Your task to perform on an android device: Search for Italian restaurants on Maps Image 0: 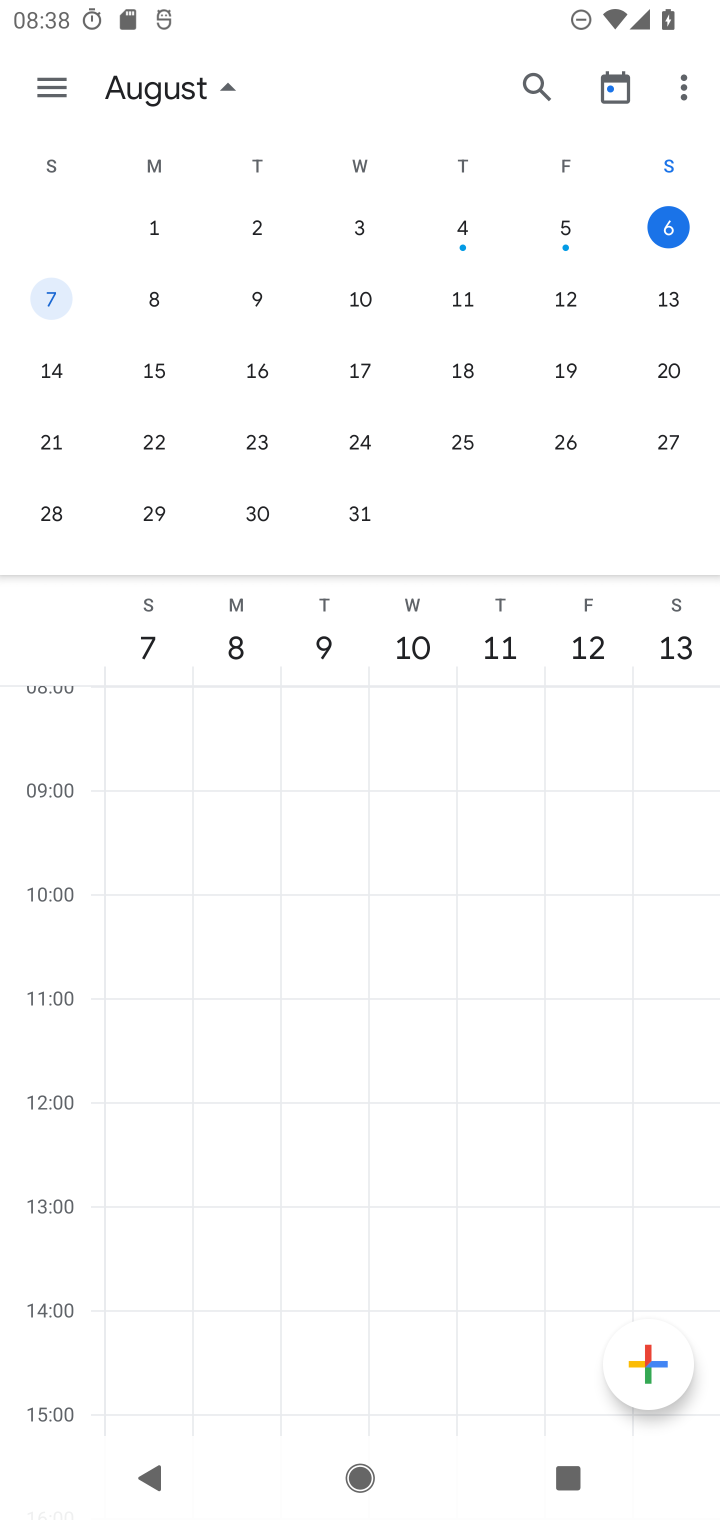
Step 0: press home button
Your task to perform on an android device: Search for Italian restaurants on Maps Image 1: 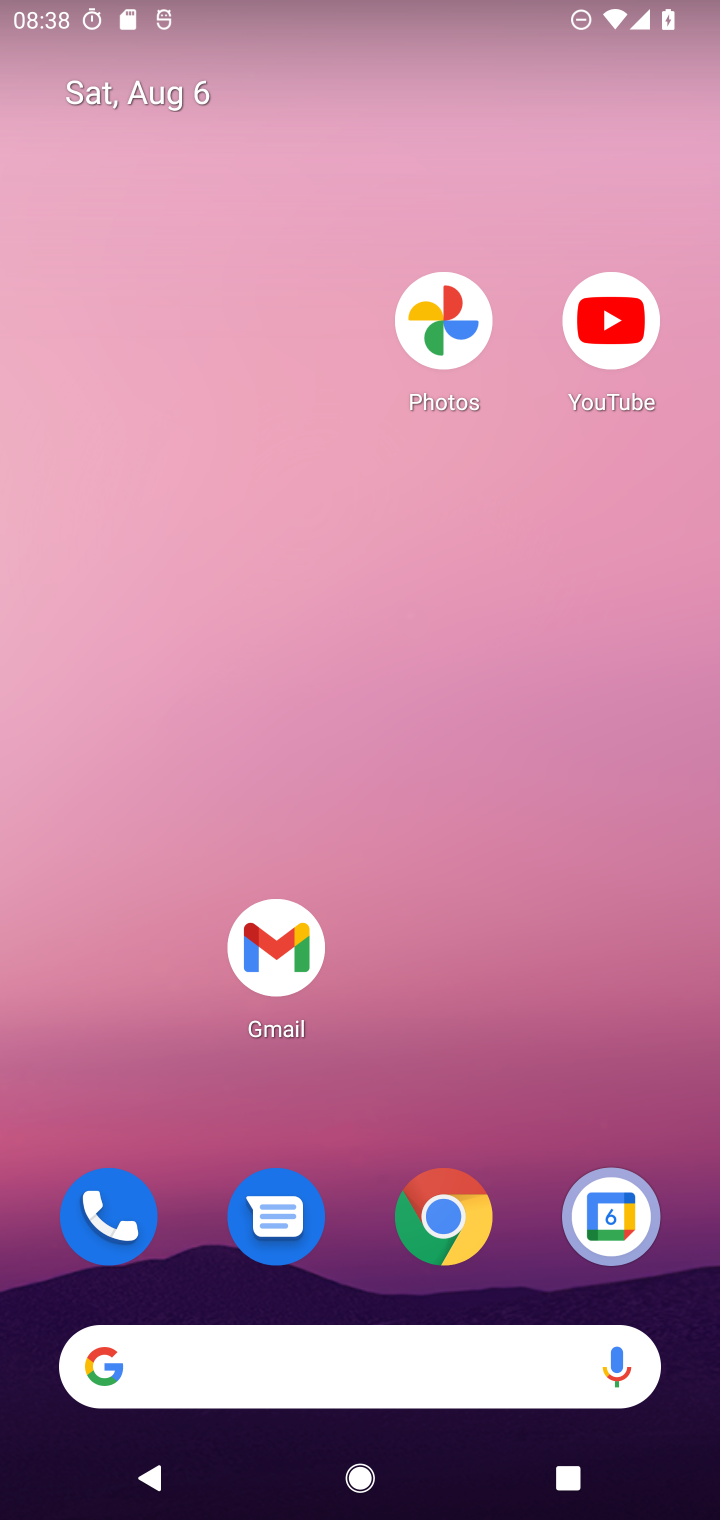
Step 1: drag from (520, 737) to (504, 87)
Your task to perform on an android device: Search for Italian restaurants on Maps Image 2: 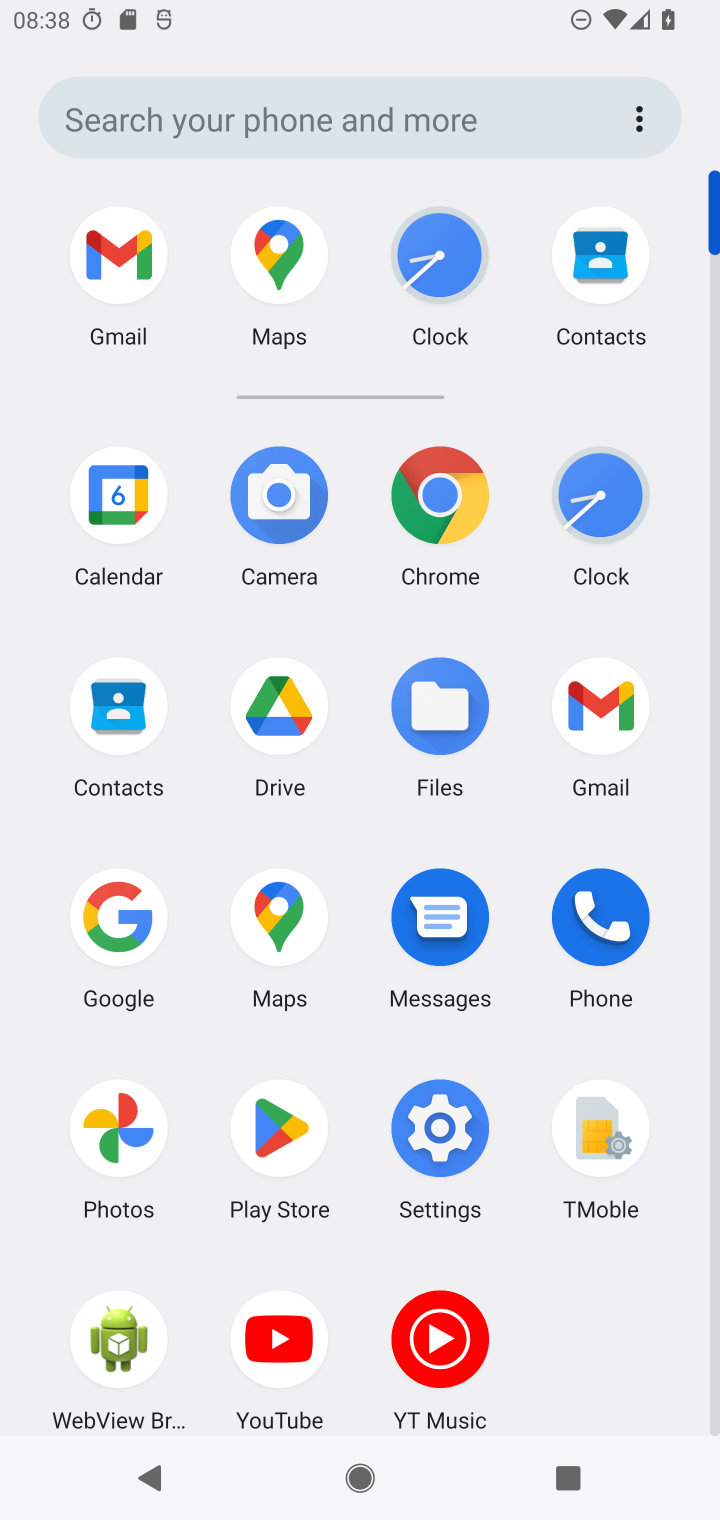
Step 2: click (300, 923)
Your task to perform on an android device: Search for Italian restaurants on Maps Image 3: 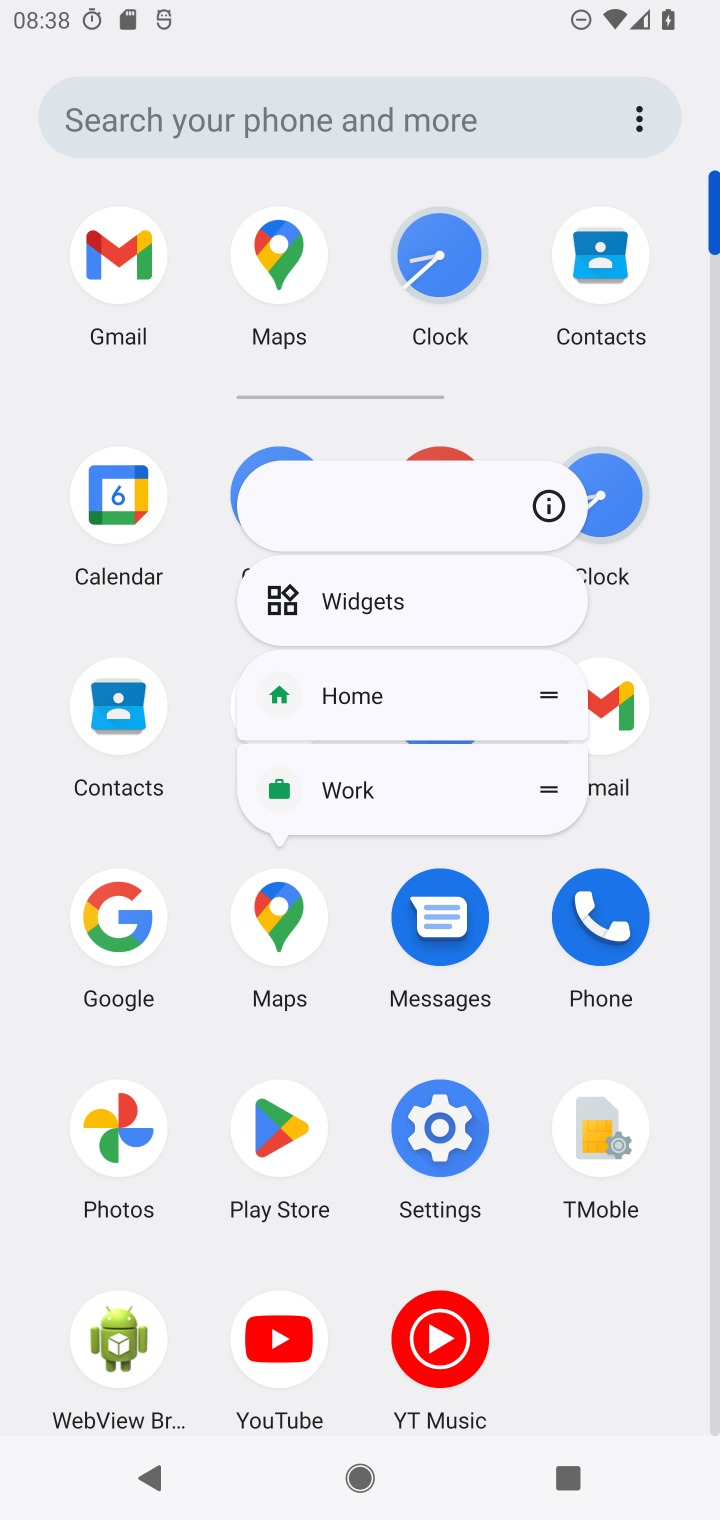
Step 3: click (282, 925)
Your task to perform on an android device: Search for Italian restaurants on Maps Image 4: 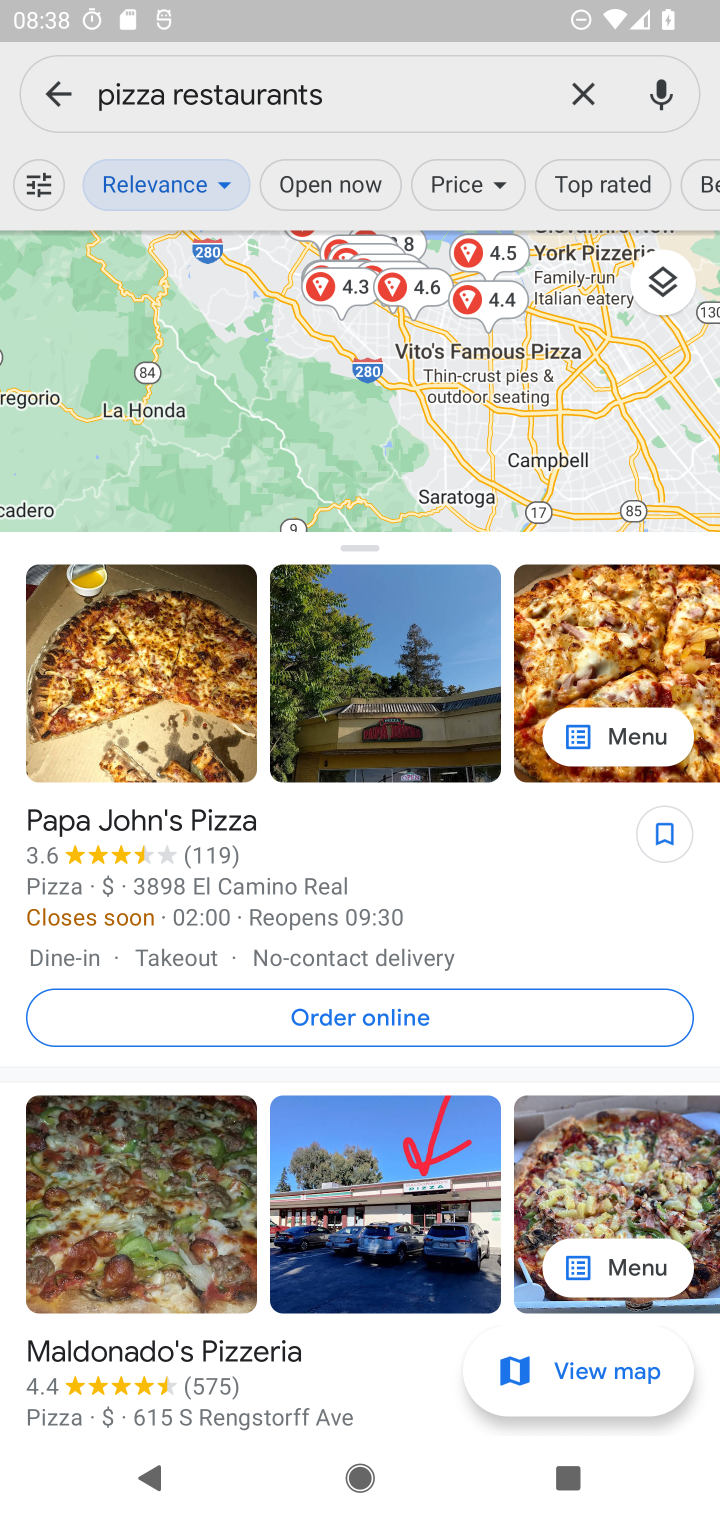
Step 4: click (530, 95)
Your task to perform on an android device: Search for Italian restaurants on Maps Image 5: 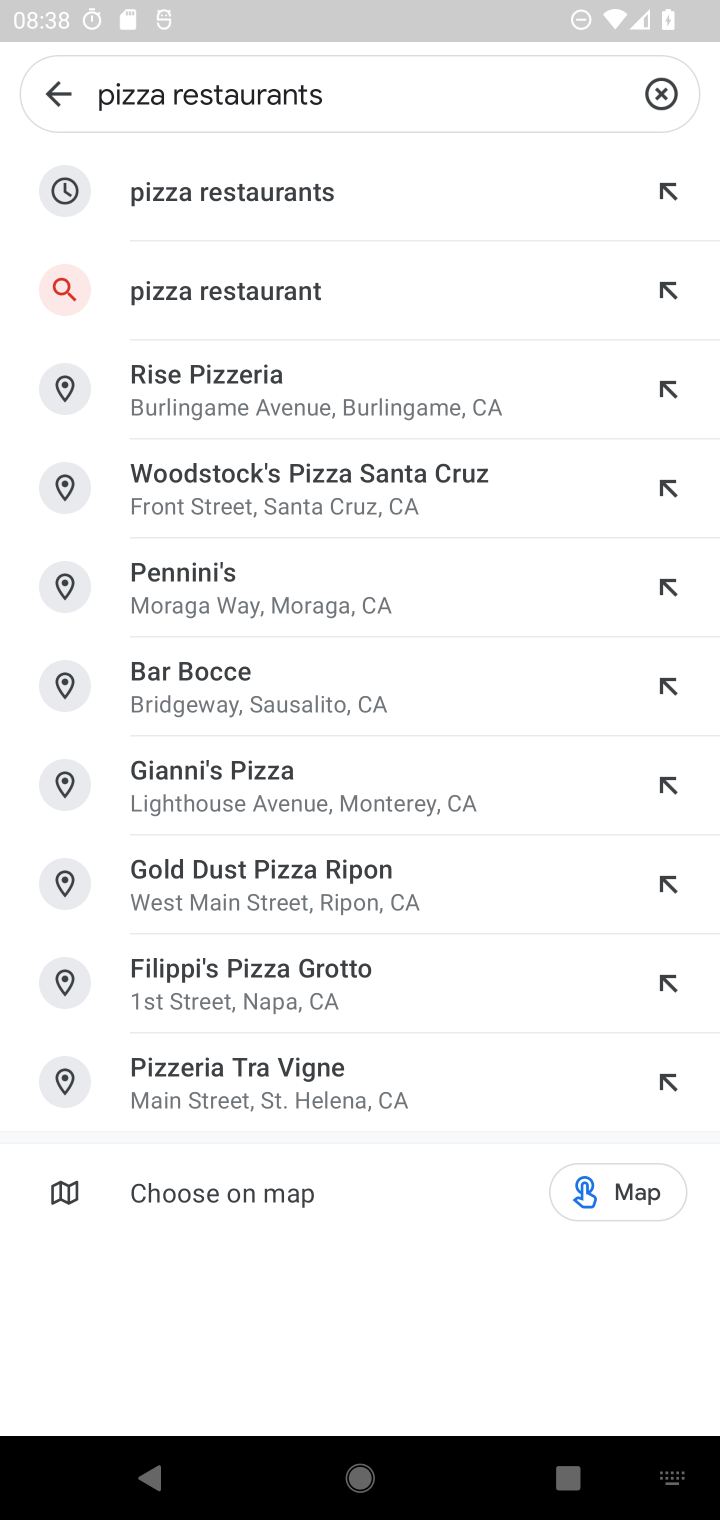
Step 5: click (666, 99)
Your task to perform on an android device: Search for Italian restaurants on Maps Image 6: 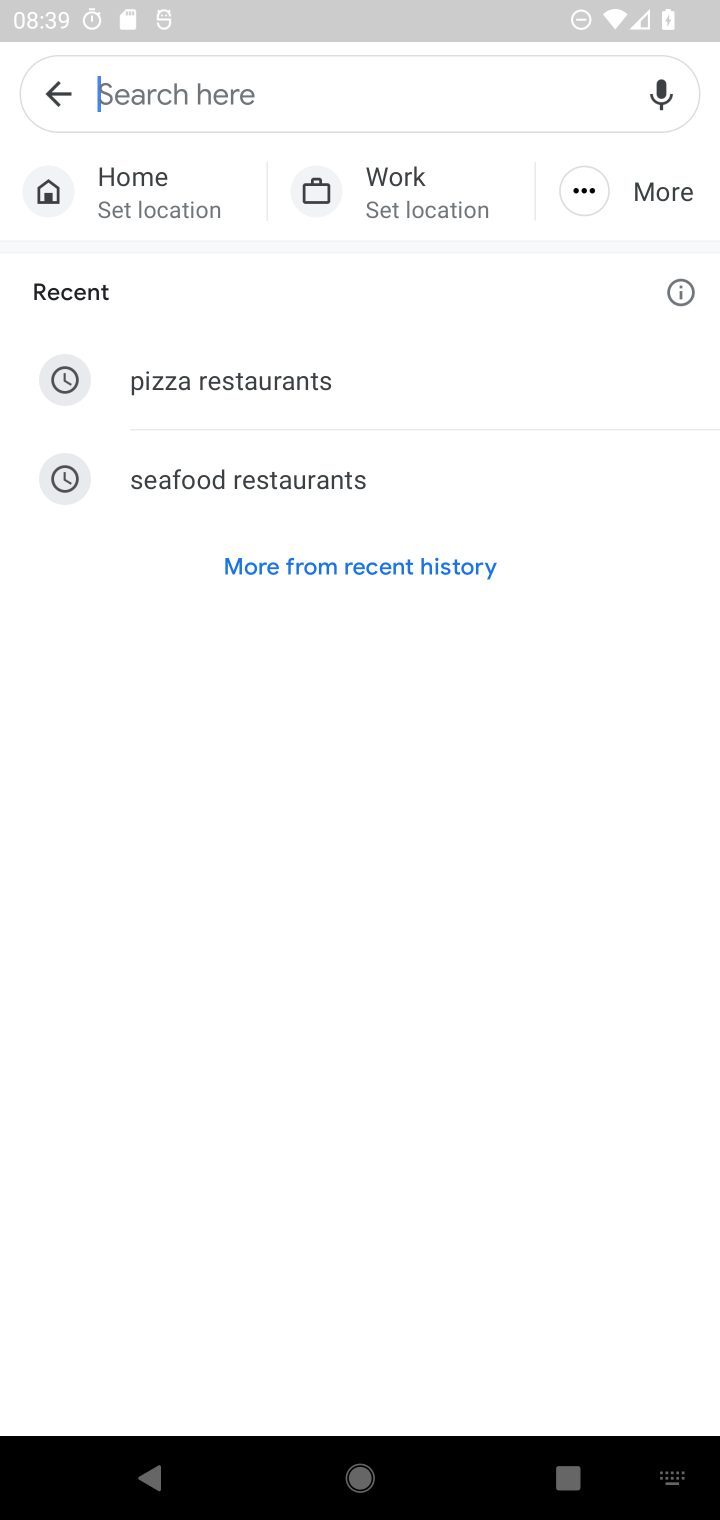
Step 6: type "Italian restaurants"
Your task to perform on an android device: Search for Italian restaurants on Maps Image 7: 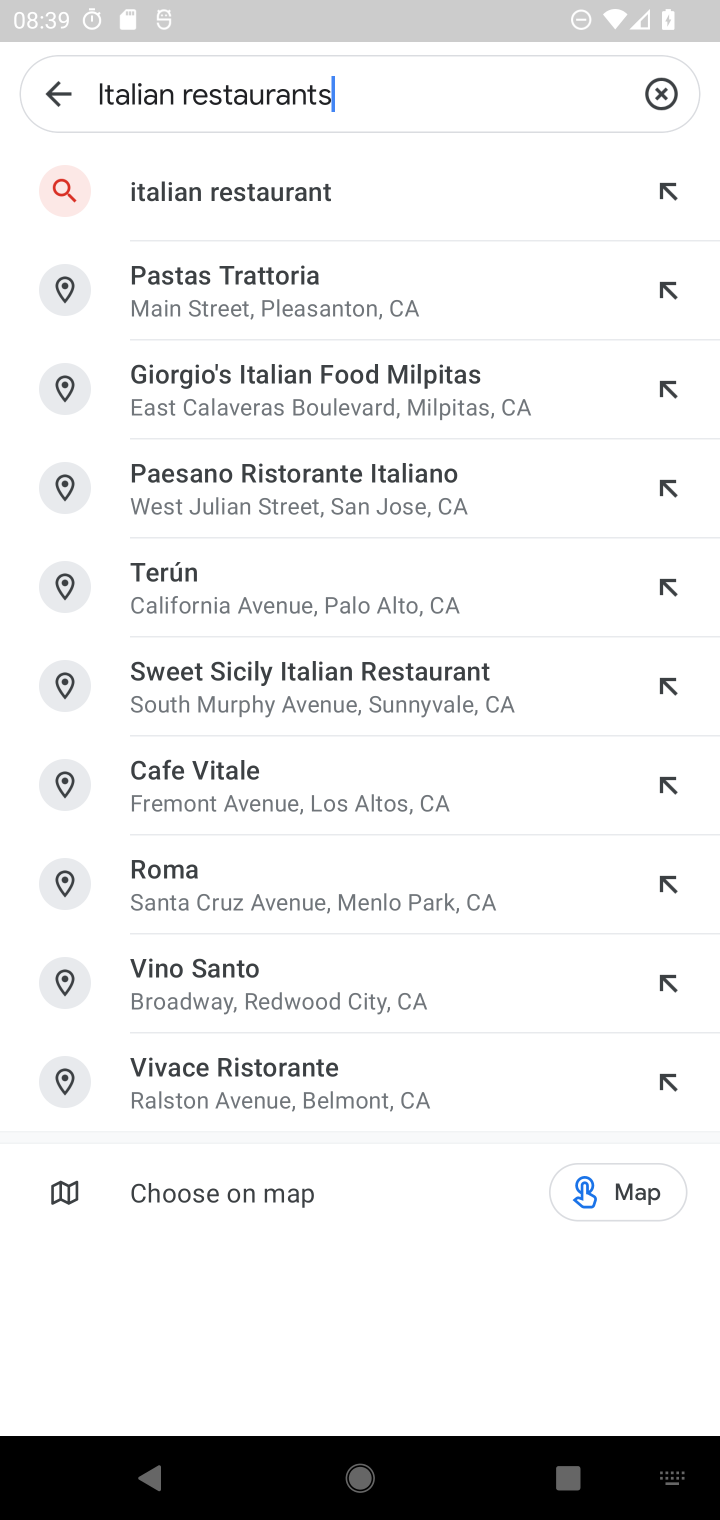
Step 7: press enter
Your task to perform on an android device: Search for Italian restaurants on Maps Image 8: 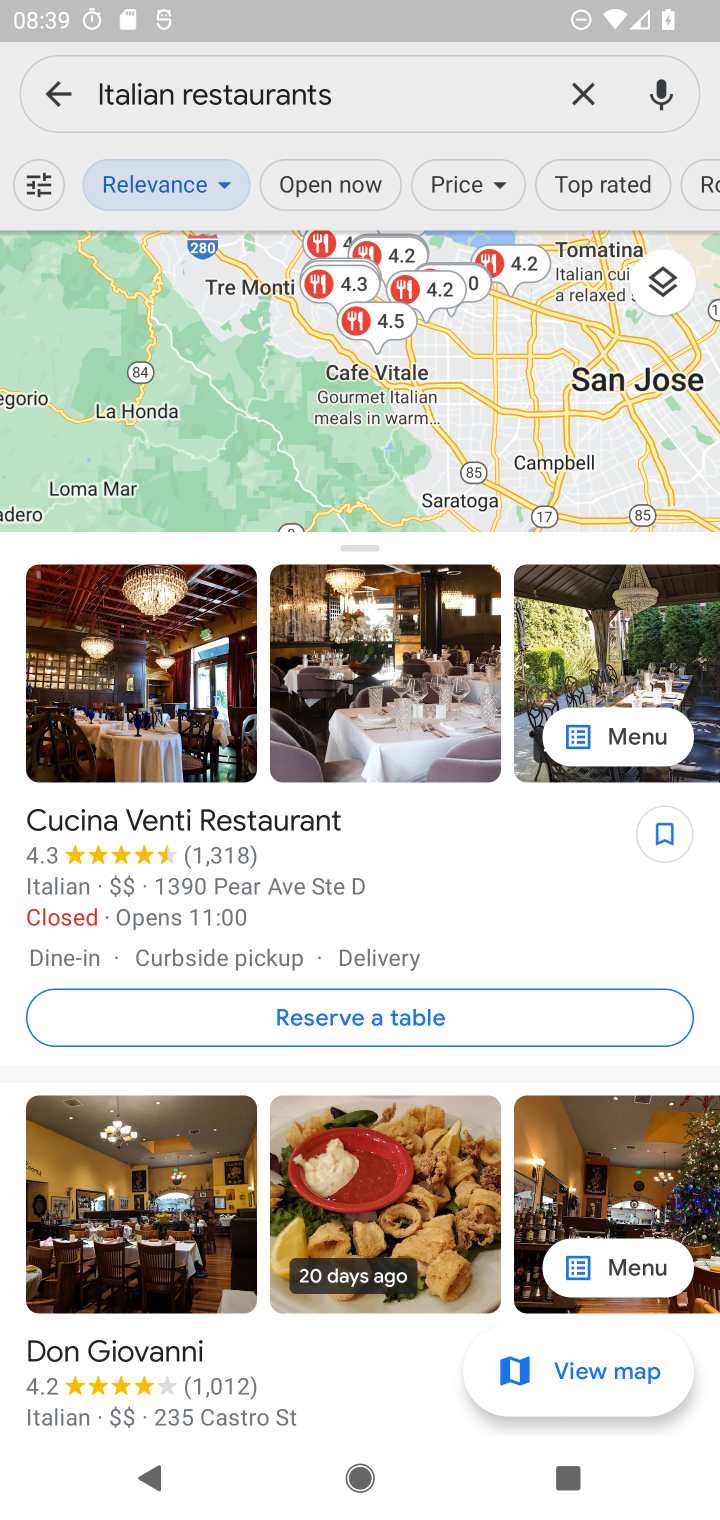
Step 8: press enter
Your task to perform on an android device: Search for Italian restaurants on Maps Image 9: 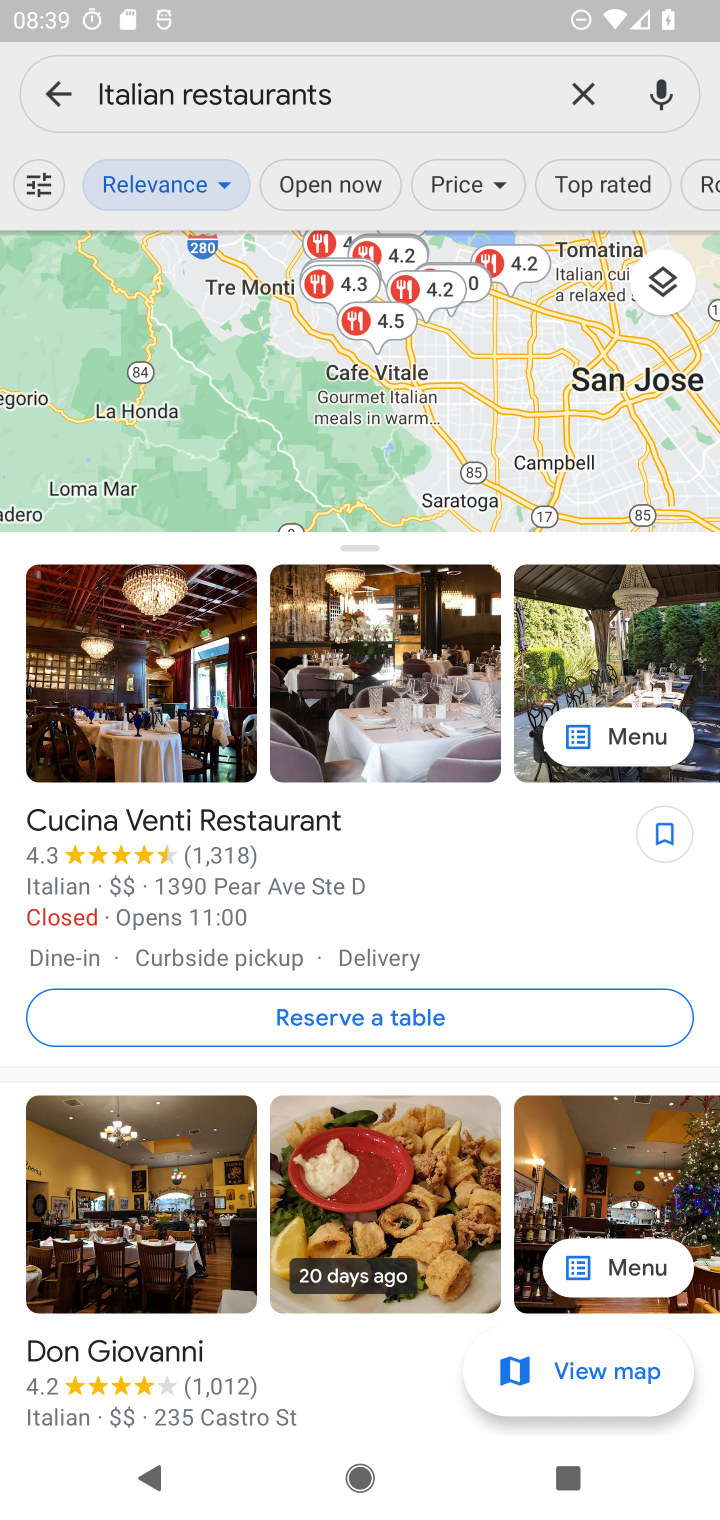
Step 9: task complete